Your task to perform on an android device: toggle data saver in the chrome app Image 0: 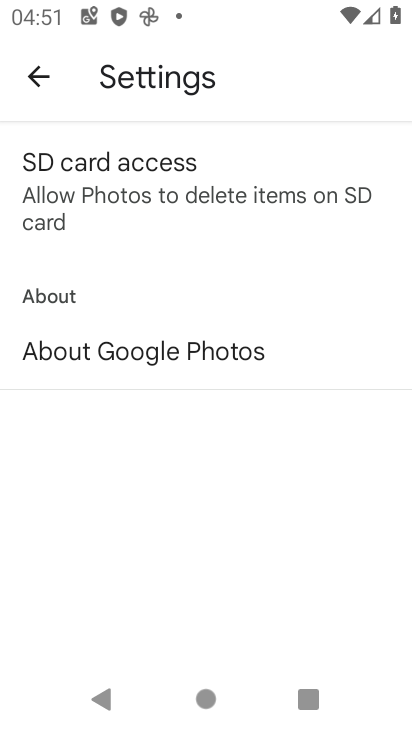
Step 0: press home button
Your task to perform on an android device: toggle data saver in the chrome app Image 1: 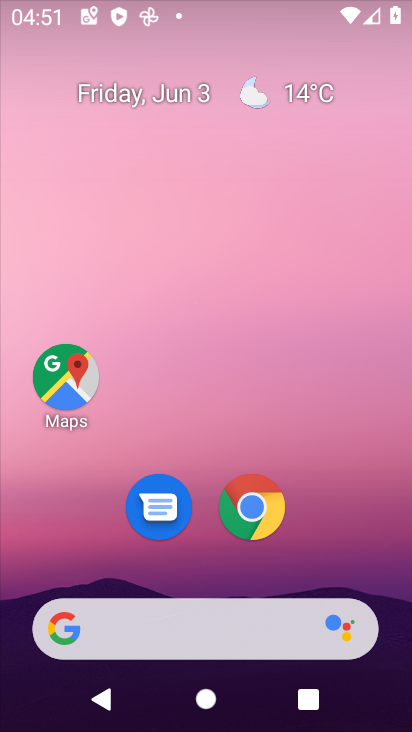
Step 1: click (262, 524)
Your task to perform on an android device: toggle data saver in the chrome app Image 2: 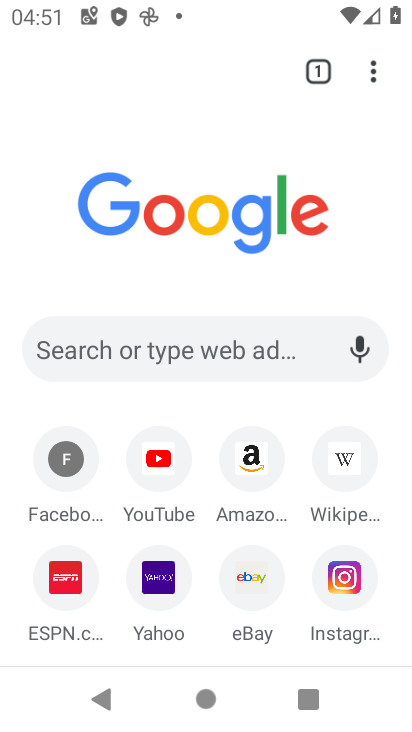
Step 2: drag from (367, 74) to (184, 507)
Your task to perform on an android device: toggle data saver in the chrome app Image 3: 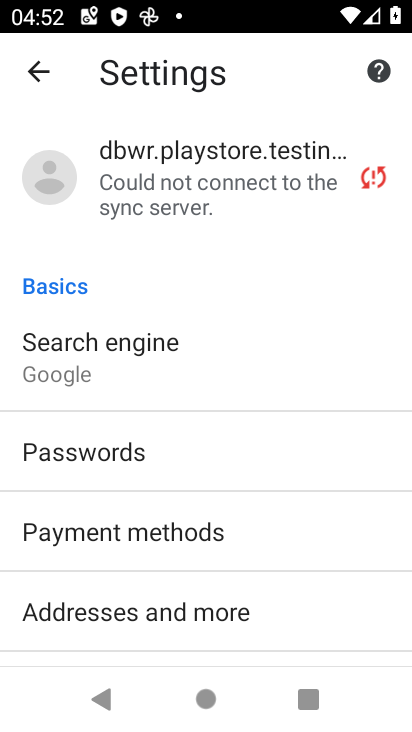
Step 3: drag from (294, 634) to (289, 1)
Your task to perform on an android device: toggle data saver in the chrome app Image 4: 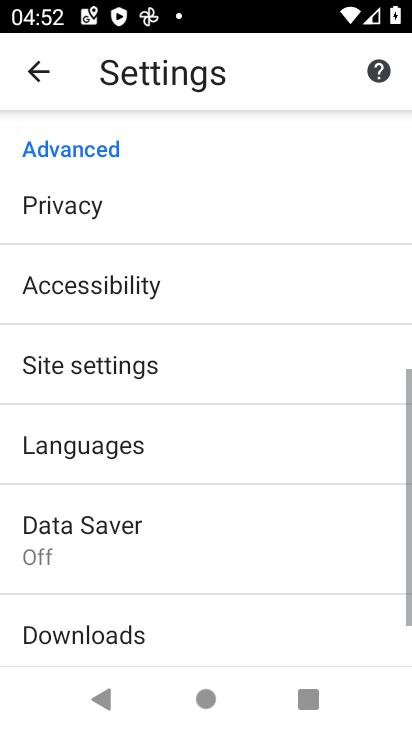
Step 4: click (158, 561)
Your task to perform on an android device: toggle data saver in the chrome app Image 5: 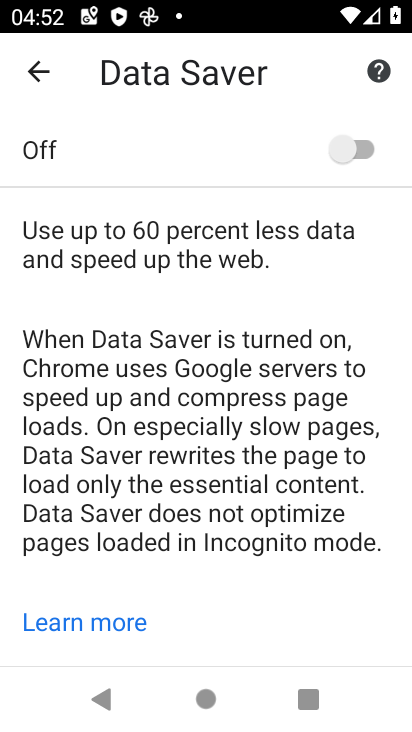
Step 5: click (334, 151)
Your task to perform on an android device: toggle data saver in the chrome app Image 6: 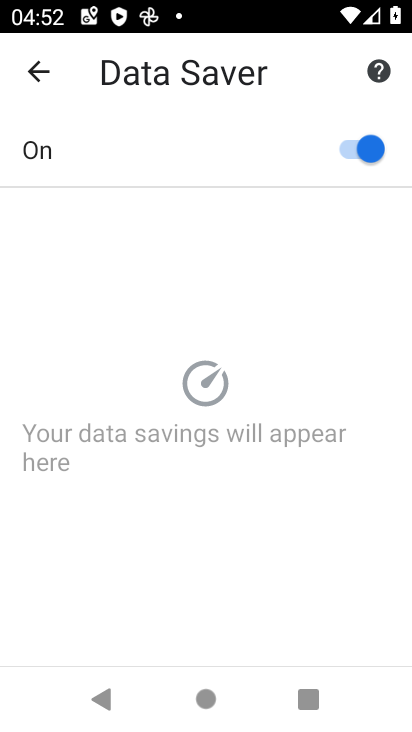
Step 6: task complete